Your task to perform on an android device: turn off data saver in the chrome app Image 0: 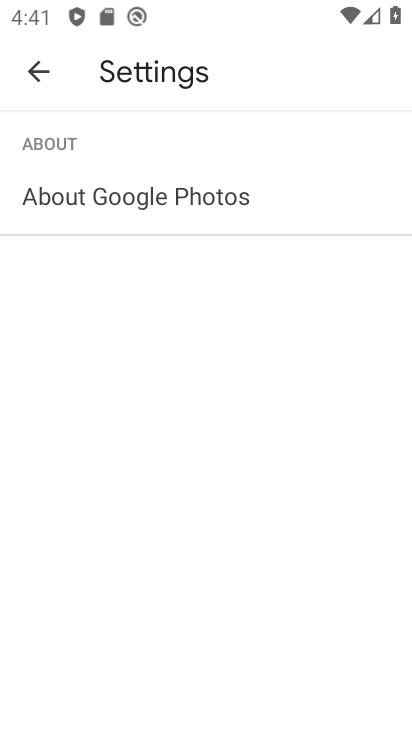
Step 0: press home button
Your task to perform on an android device: turn off data saver in the chrome app Image 1: 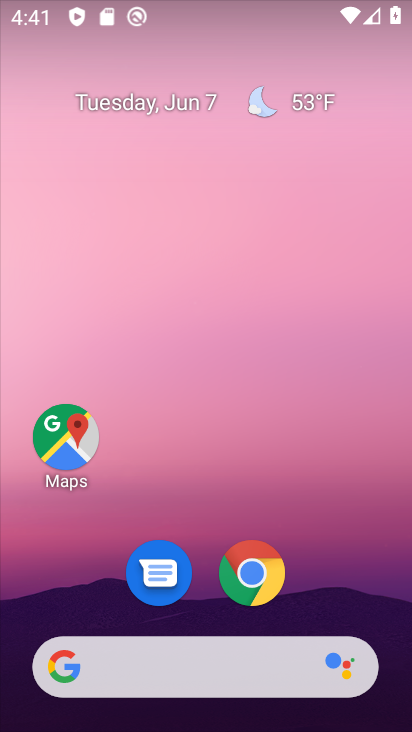
Step 1: drag from (224, 639) to (202, 310)
Your task to perform on an android device: turn off data saver in the chrome app Image 2: 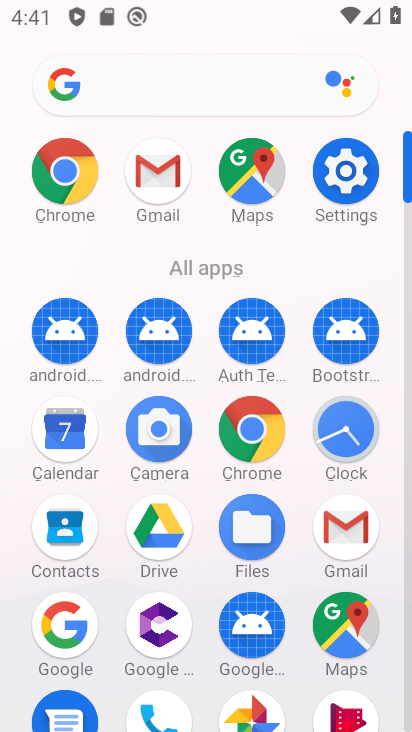
Step 2: click (236, 449)
Your task to perform on an android device: turn off data saver in the chrome app Image 3: 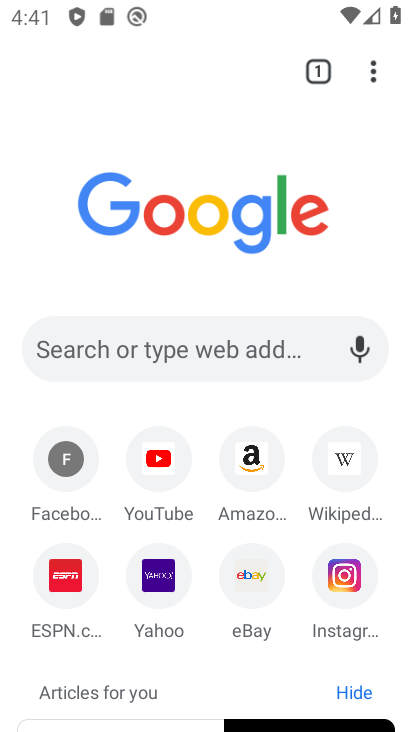
Step 3: click (371, 82)
Your task to perform on an android device: turn off data saver in the chrome app Image 4: 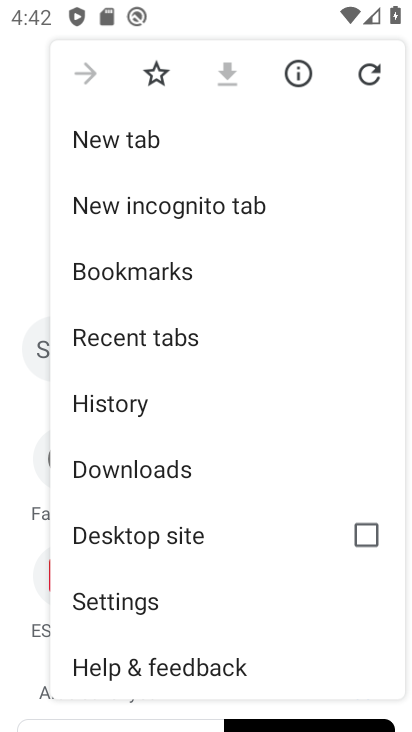
Step 4: click (127, 595)
Your task to perform on an android device: turn off data saver in the chrome app Image 5: 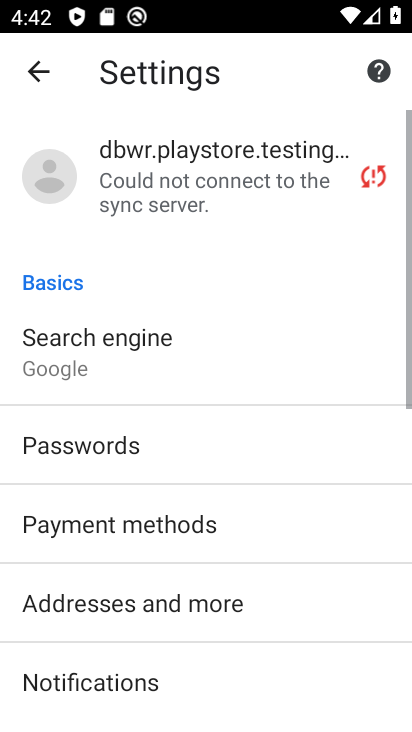
Step 5: drag from (173, 689) to (185, 335)
Your task to perform on an android device: turn off data saver in the chrome app Image 6: 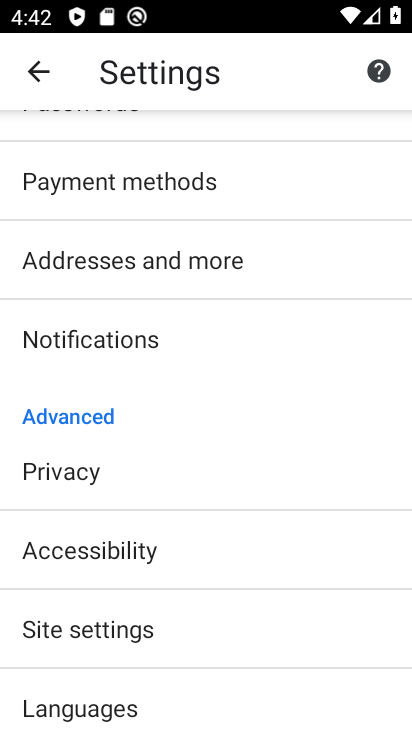
Step 6: click (90, 713)
Your task to perform on an android device: turn off data saver in the chrome app Image 7: 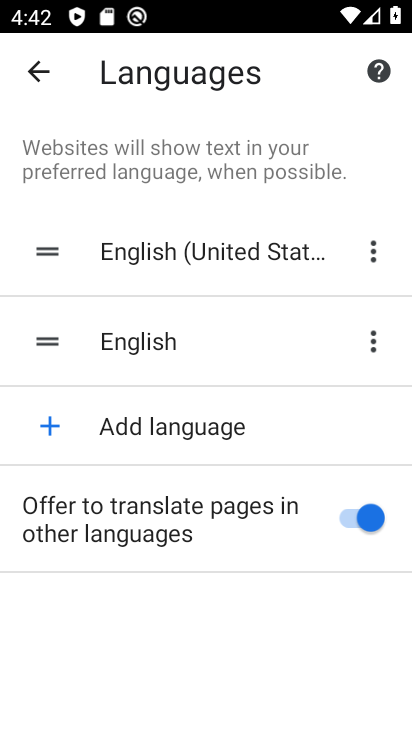
Step 7: click (41, 73)
Your task to perform on an android device: turn off data saver in the chrome app Image 8: 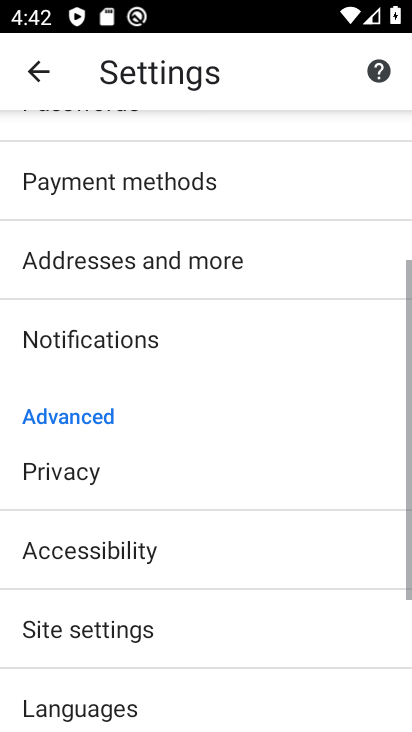
Step 8: drag from (179, 707) to (209, 298)
Your task to perform on an android device: turn off data saver in the chrome app Image 9: 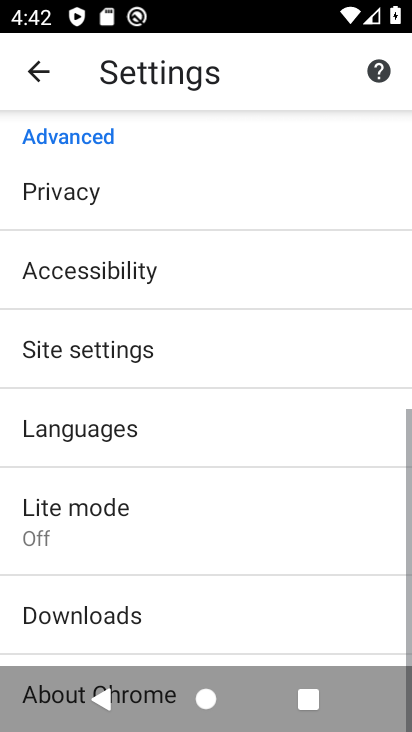
Step 9: click (115, 522)
Your task to perform on an android device: turn off data saver in the chrome app Image 10: 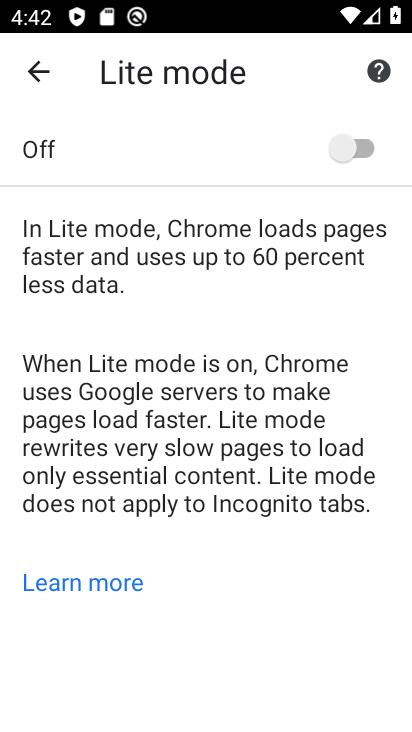
Step 10: task complete